Your task to perform on an android device: Turn off the flashlight Image 0: 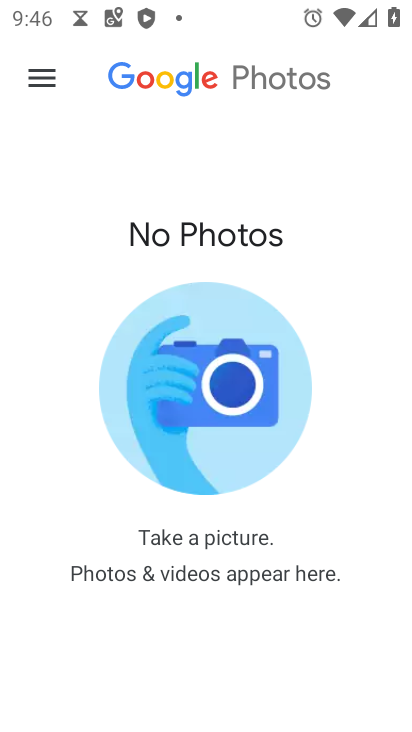
Step 0: drag from (222, 528) to (285, 85)
Your task to perform on an android device: Turn off the flashlight Image 1: 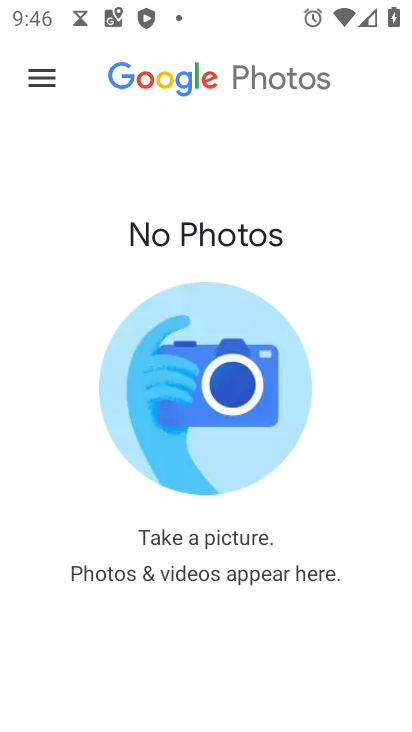
Step 1: press back button
Your task to perform on an android device: Turn off the flashlight Image 2: 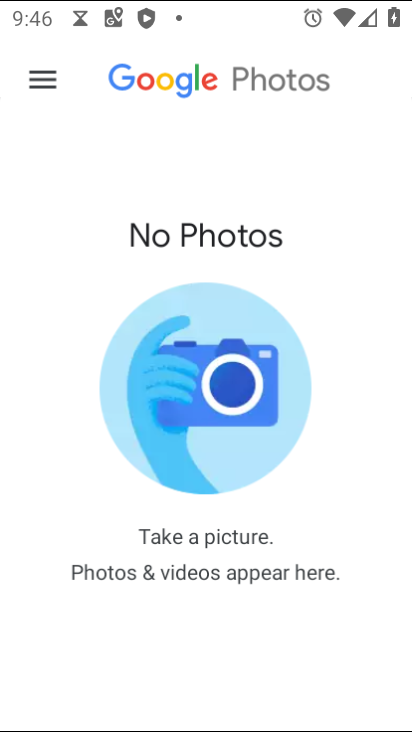
Step 2: press back button
Your task to perform on an android device: Turn off the flashlight Image 3: 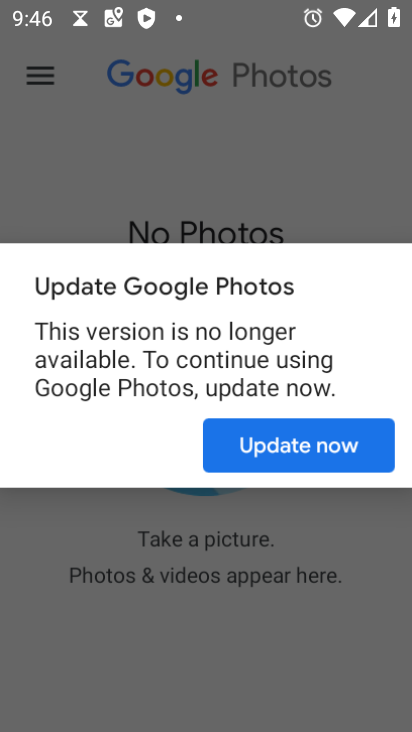
Step 3: drag from (242, 532) to (234, 79)
Your task to perform on an android device: Turn off the flashlight Image 4: 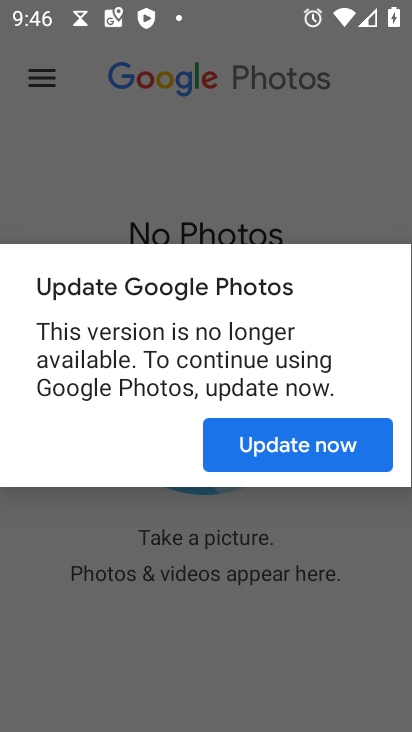
Step 4: click (331, 539)
Your task to perform on an android device: Turn off the flashlight Image 5: 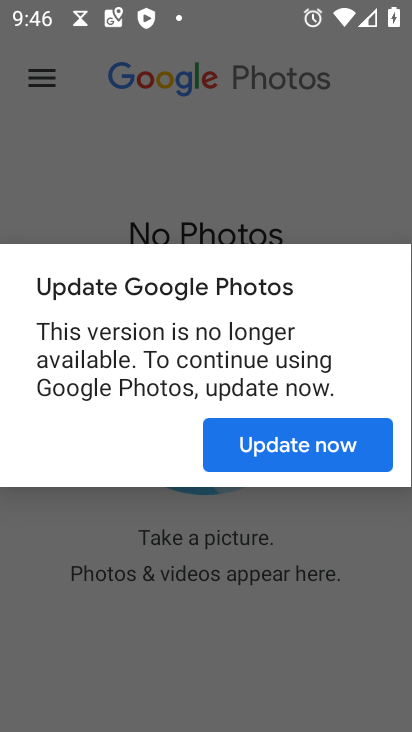
Step 5: click (331, 539)
Your task to perform on an android device: Turn off the flashlight Image 6: 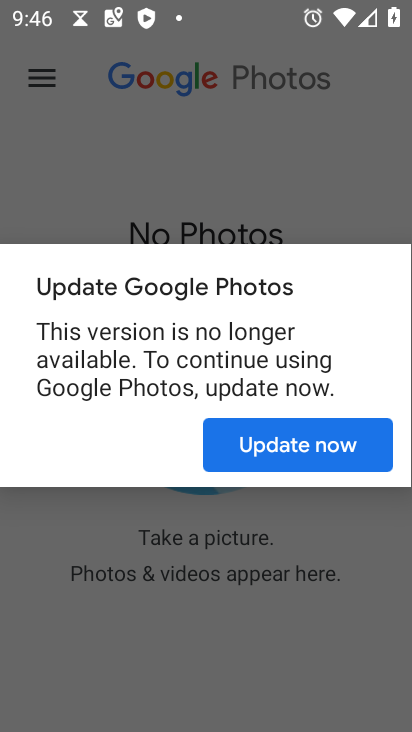
Step 6: click (335, 535)
Your task to perform on an android device: Turn off the flashlight Image 7: 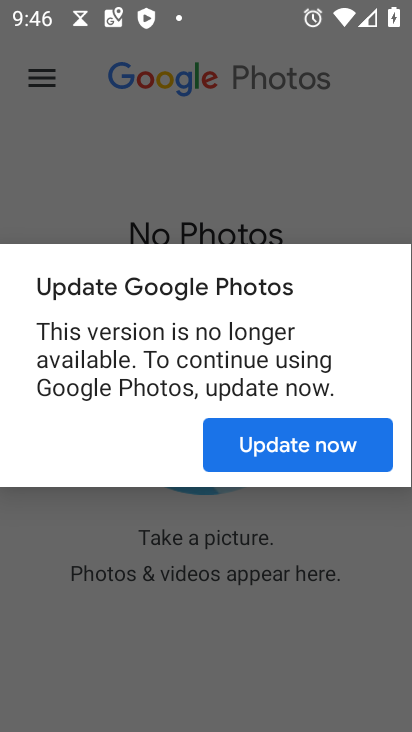
Step 7: click (338, 530)
Your task to perform on an android device: Turn off the flashlight Image 8: 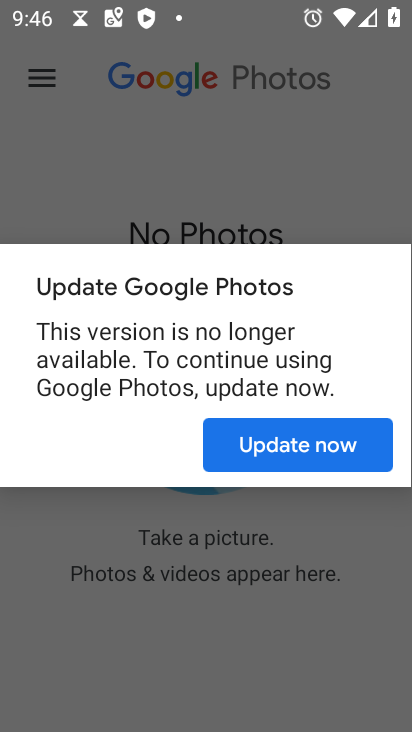
Step 8: click (241, 581)
Your task to perform on an android device: Turn off the flashlight Image 9: 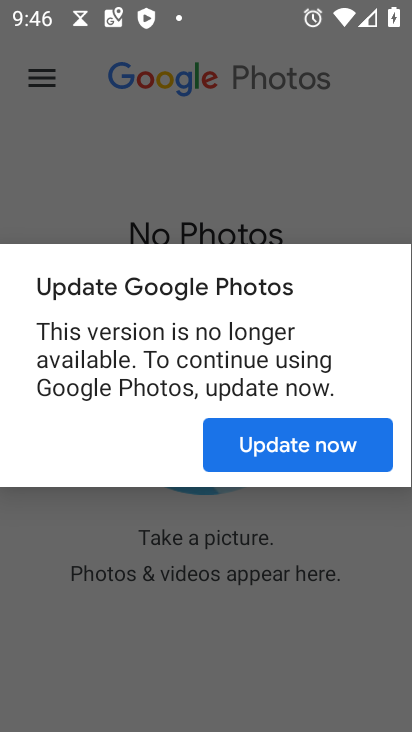
Step 9: click (256, 597)
Your task to perform on an android device: Turn off the flashlight Image 10: 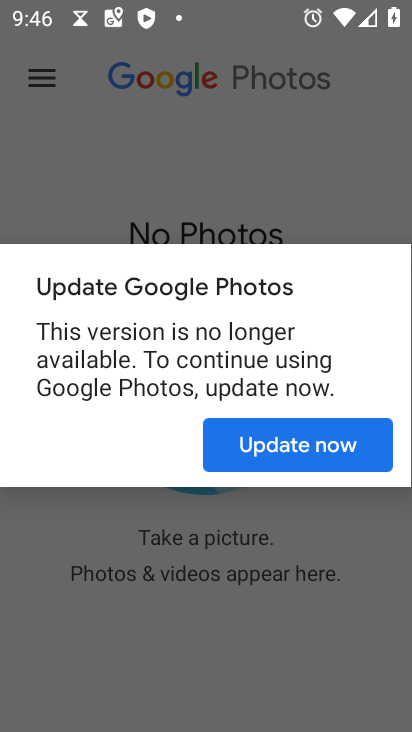
Step 10: click (260, 604)
Your task to perform on an android device: Turn off the flashlight Image 11: 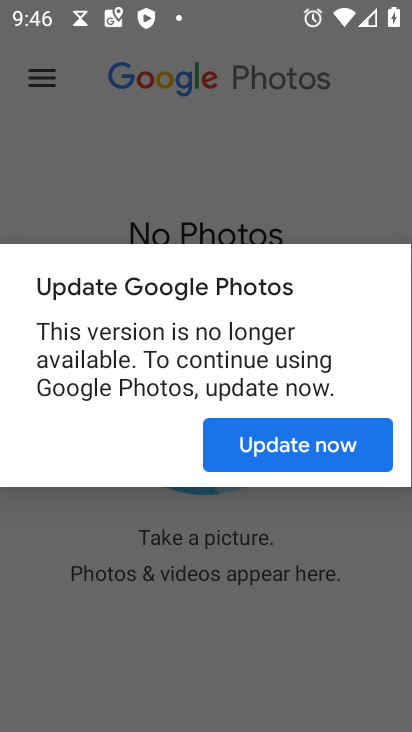
Step 11: click (336, 520)
Your task to perform on an android device: Turn off the flashlight Image 12: 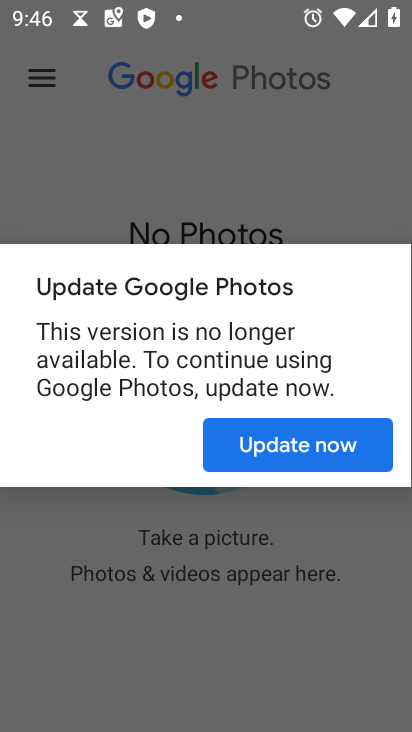
Step 12: click (335, 521)
Your task to perform on an android device: Turn off the flashlight Image 13: 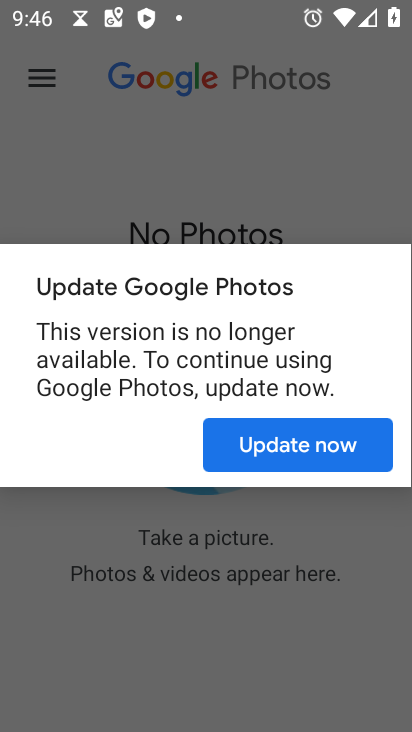
Step 13: click (335, 521)
Your task to perform on an android device: Turn off the flashlight Image 14: 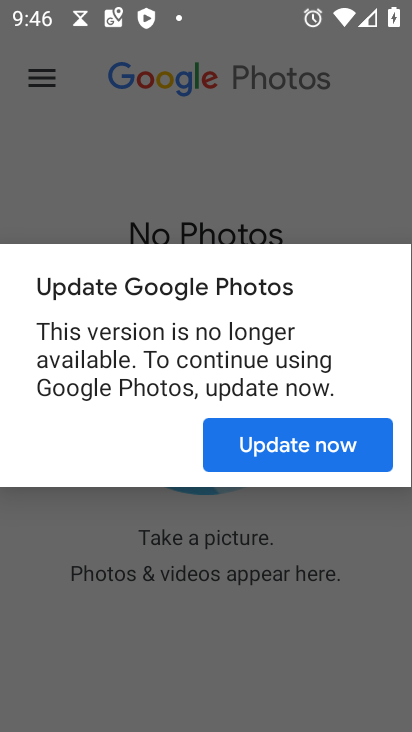
Step 14: task complete